Your task to perform on an android device: What is the capital of Canada? Image 0: 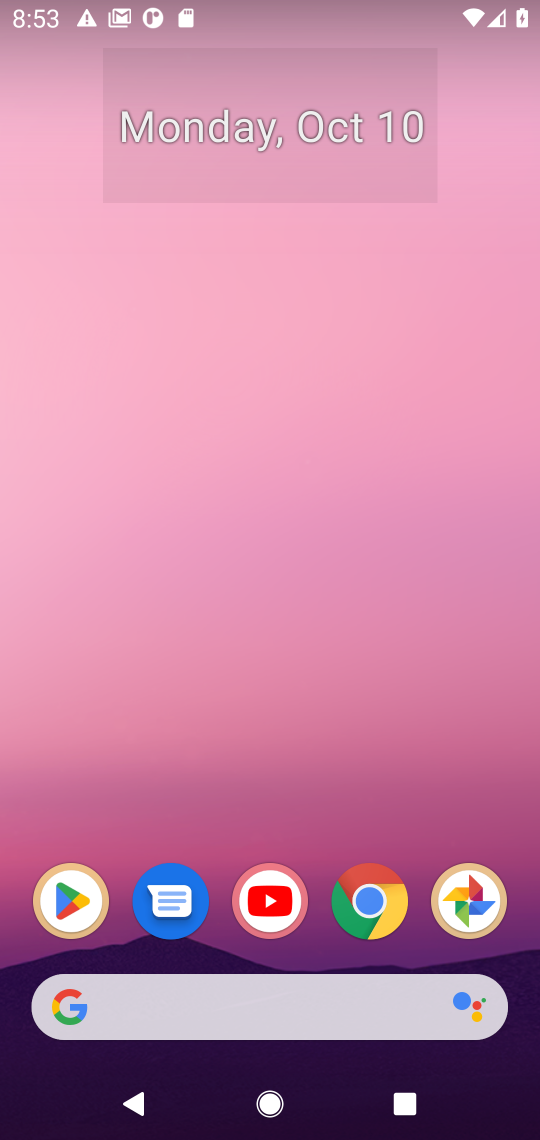
Step 0: press home button
Your task to perform on an android device: What is the capital of Canada? Image 1: 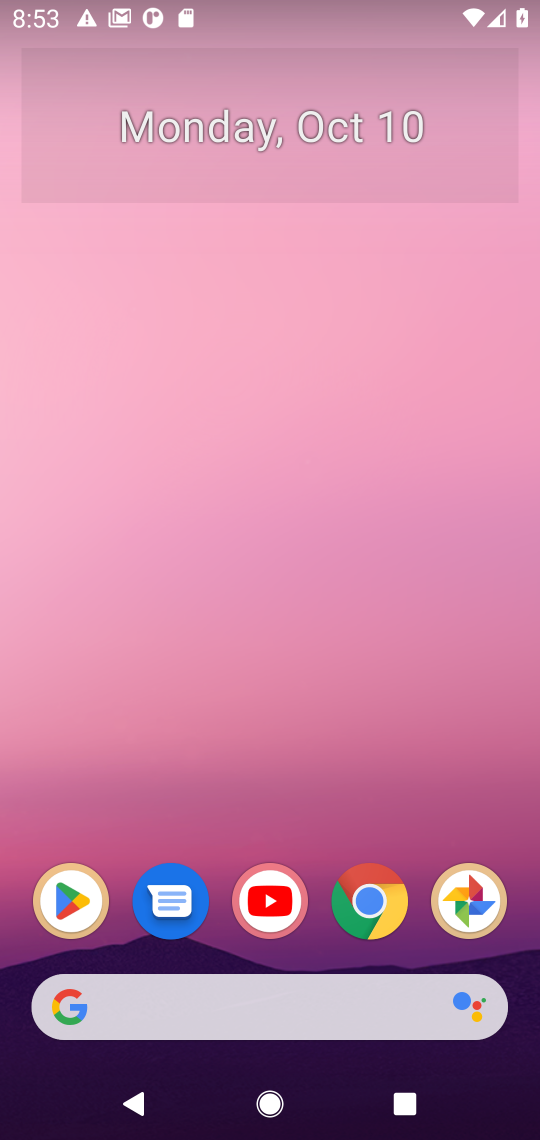
Step 1: click (272, 1010)
Your task to perform on an android device: What is the capital of Canada? Image 2: 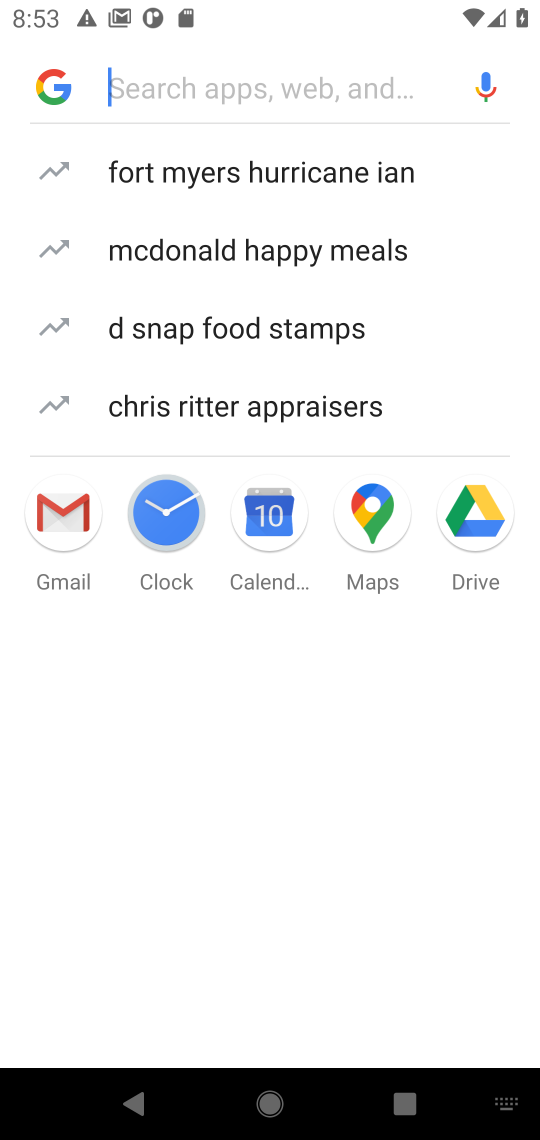
Step 2: type "What is the capital of Canada"
Your task to perform on an android device: What is the capital of Canada? Image 3: 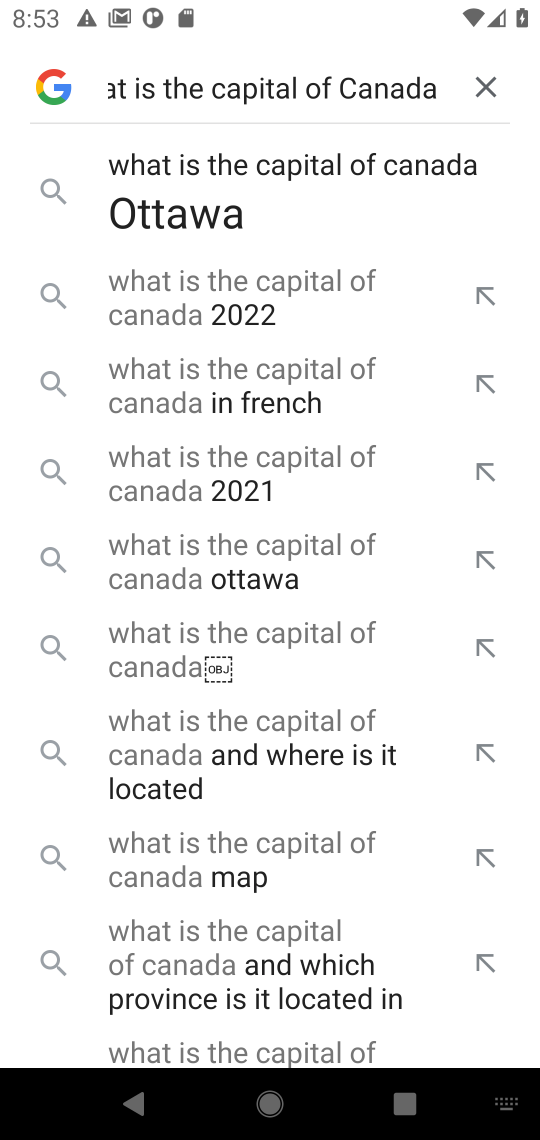
Step 3: press enter
Your task to perform on an android device: What is the capital of Canada? Image 4: 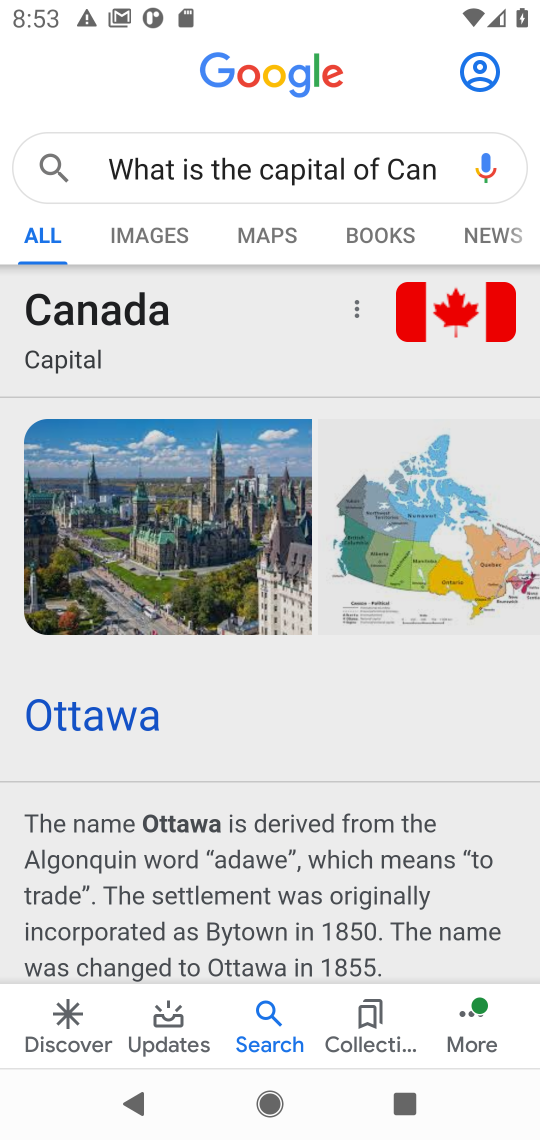
Step 4: task complete